Your task to perform on an android device: Clear all items from cart on costco.com. Search for "dell xps" on costco.com, select the first entry, and add it to the cart. Image 0: 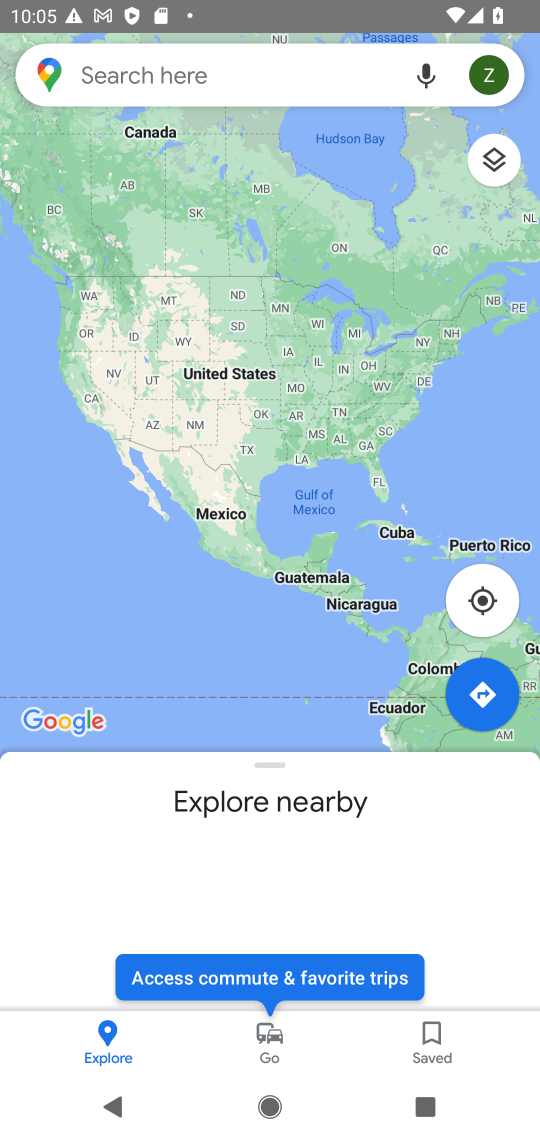
Step 0: press home button
Your task to perform on an android device: Clear all items from cart on costco.com. Search for "dell xps" on costco.com, select the first entry, and add it to the cart. Image 1: 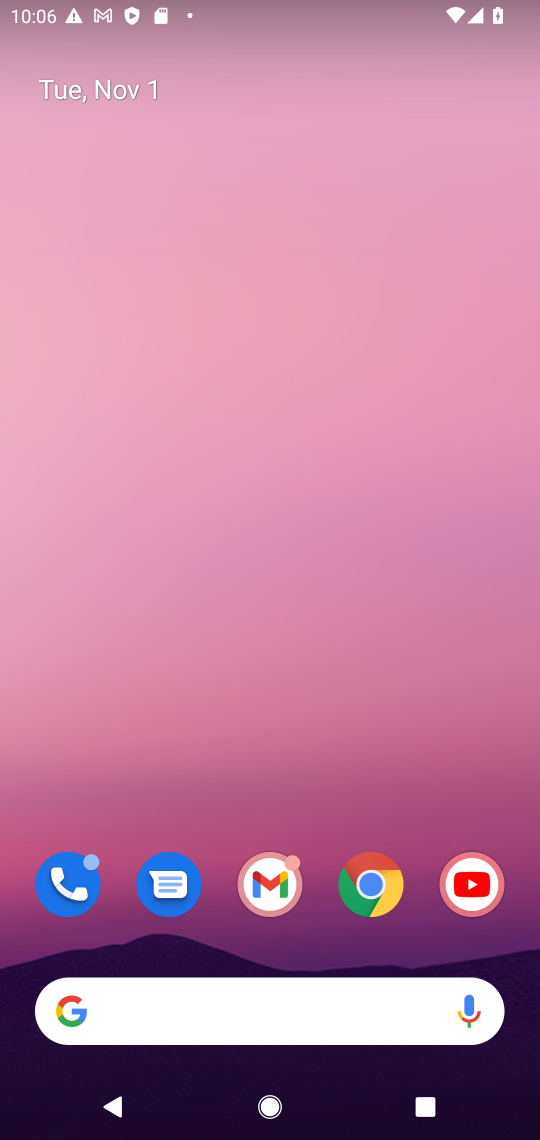
Step 1: click (384, 889)
Your task to perform on an android device: Clear all items from cart on costco.com. Search for "dell xps" on costco.com, select the first entry, and add it to the cart. Image 2: 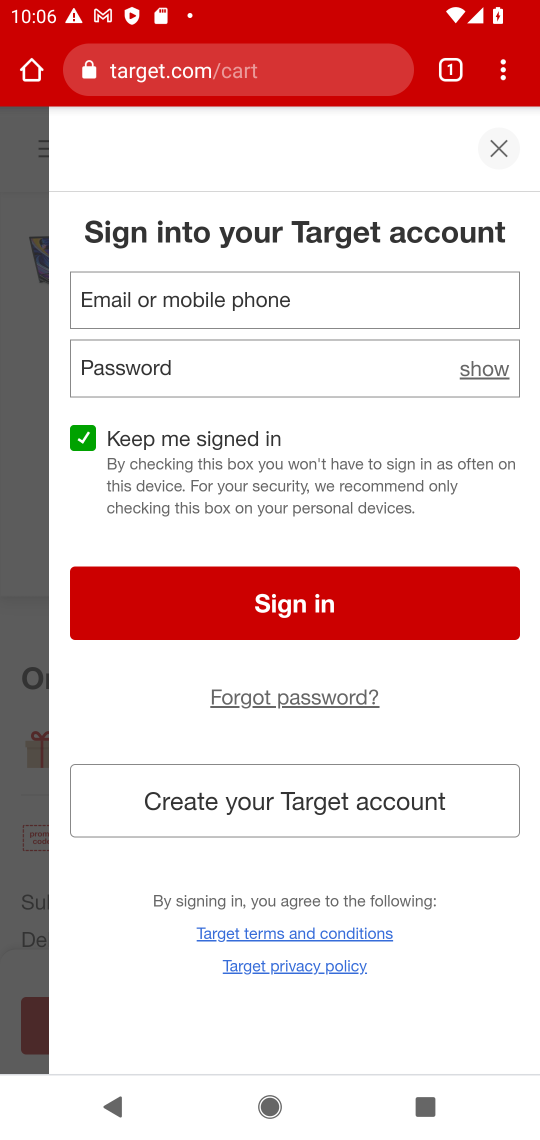
Step 2: click (256, 74)
Your task to perform on an android device: Clear all items from cart on costco.com. Search for "dell xps" on costco.com, select the first entry, and add it to the cart. Image 3: 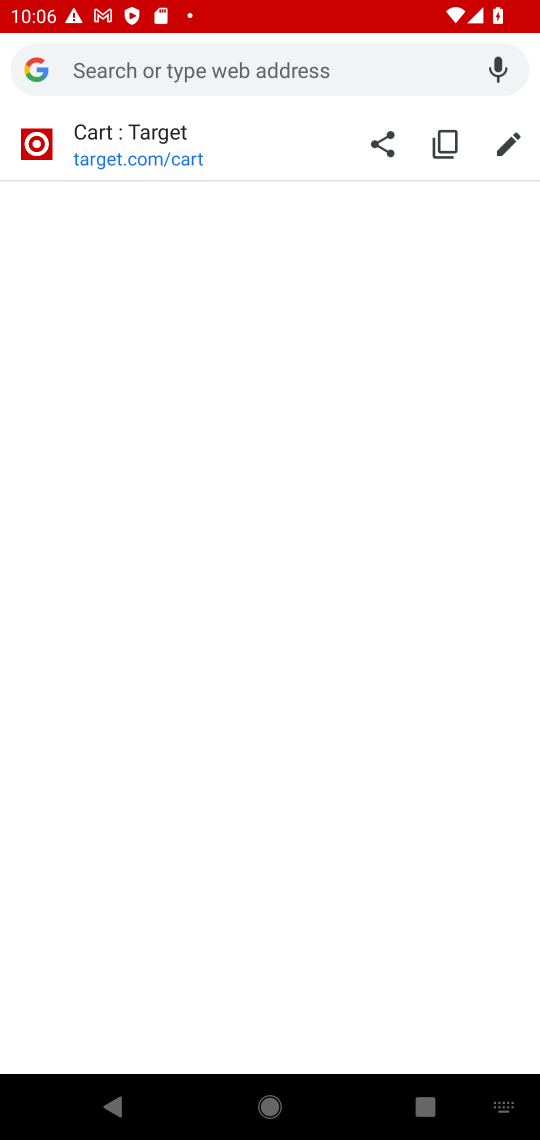
Step 3: type "costco.com"
Your task to perform on an android device: Clear all items from cart on costco.com. Search for "dell xps" on costco.com, select the first entry, and add it to the cart. Image 4: 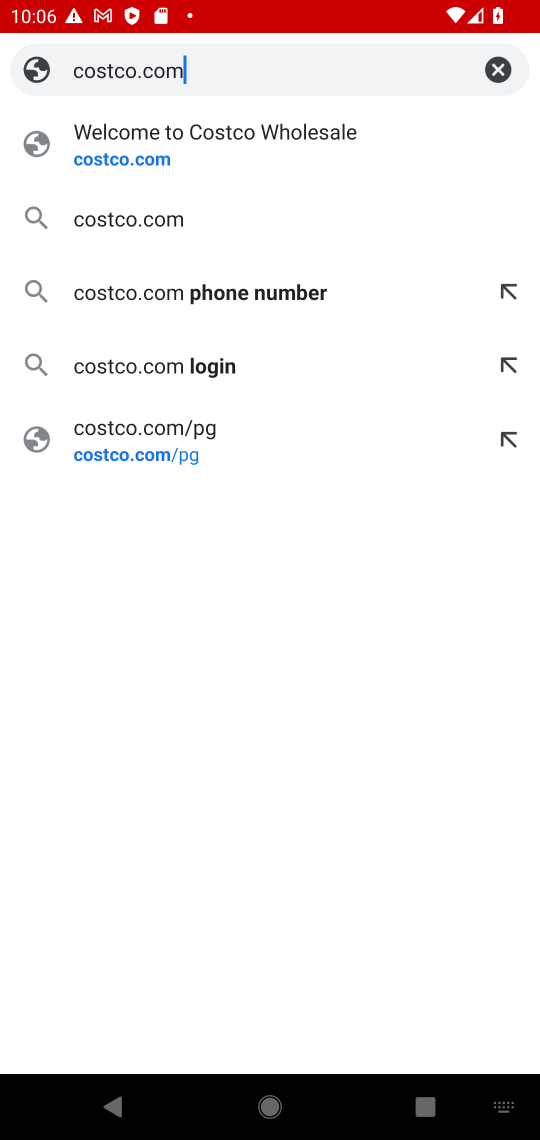
Step 4: press enter
Your task to perform on an android device: Clear all items from cart on costco.com. Search for "dell xps" on costco.com, select the first entry, and add it to the cart. Image 5: 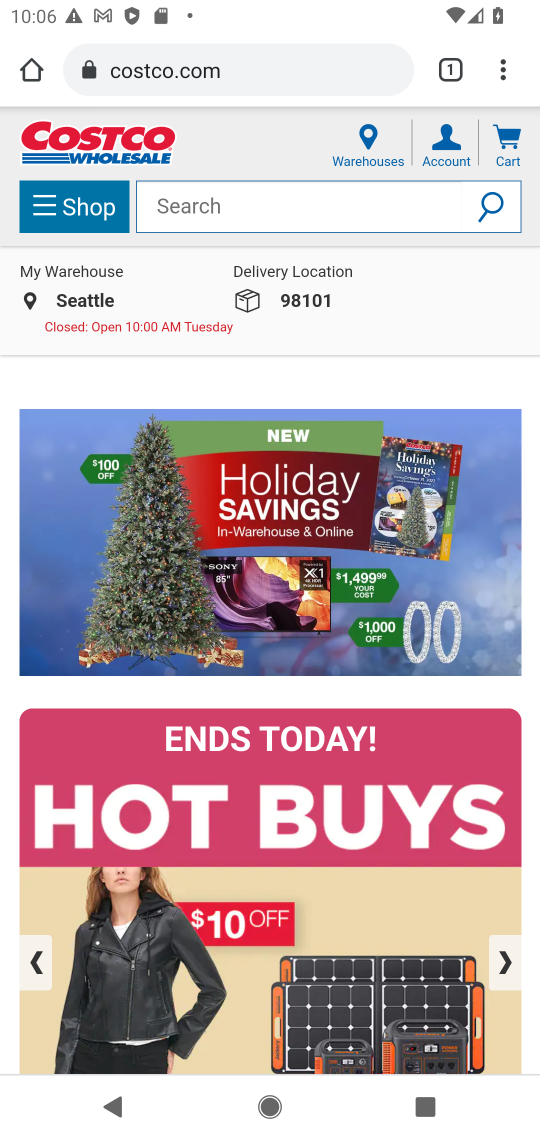
Step 5: click (484, 145)
Your task to perform on an android device: Clear all items from cart on costco.com. Search for "dell xps" on costco.com, select the first entry, and add it to the cart. Image 6: 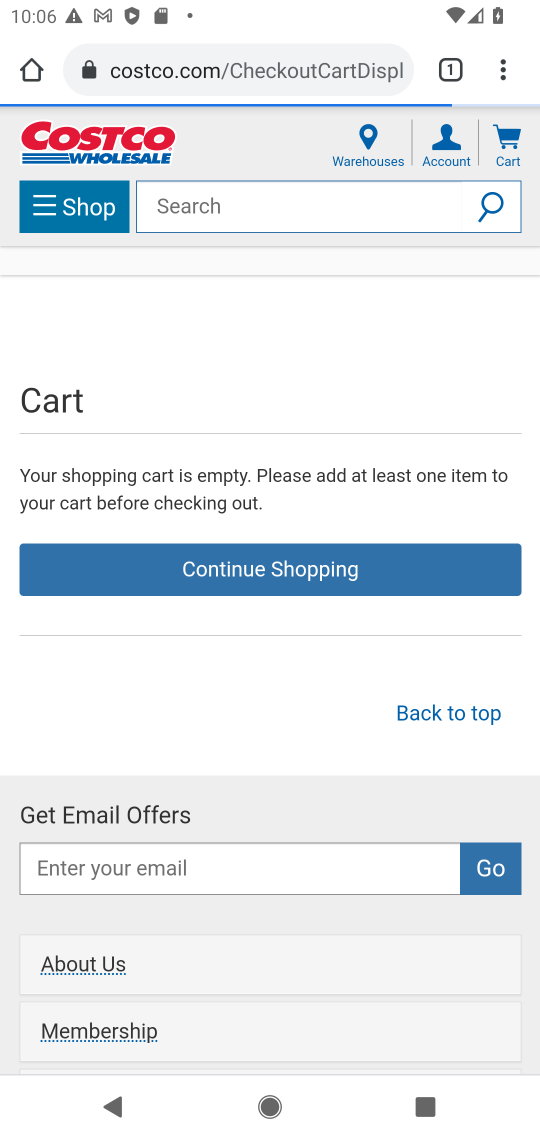
Step 6: click (292, 211)
Your task to perform on an android device: Clear all items from cart on costco.com. Search for "dell xps" on costco.com, select the first entry, and add it to the cart. Image 7: 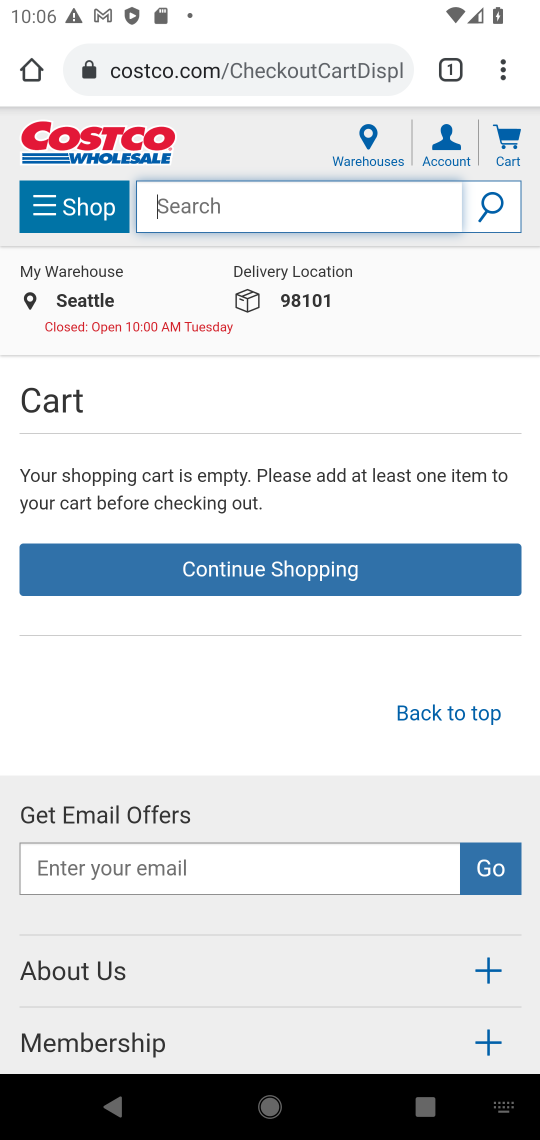
Step 7: type "dell xps"
Your task to perform on an android device: Clear all items from cart on costco.com. Search for "dell xps" on costco.com, select the first entry, and add it to the cart. Image 8: 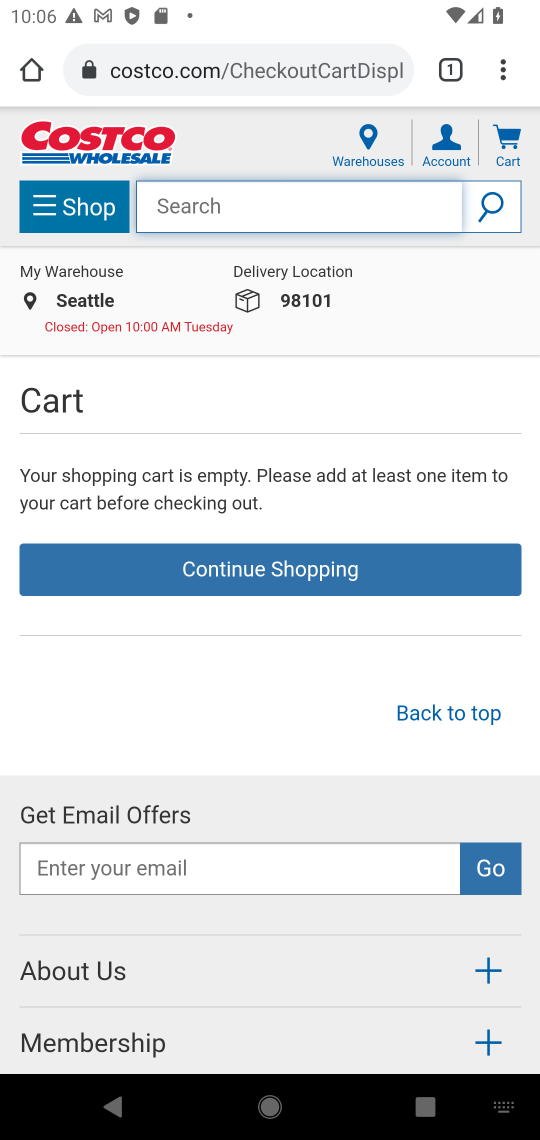
Step 8: type ""
Your task to perform on an android device: Clear all items from cart on costco.com. Search for "dell xps" on costco.com, select the first entry, and add it to the cart. Image 9: 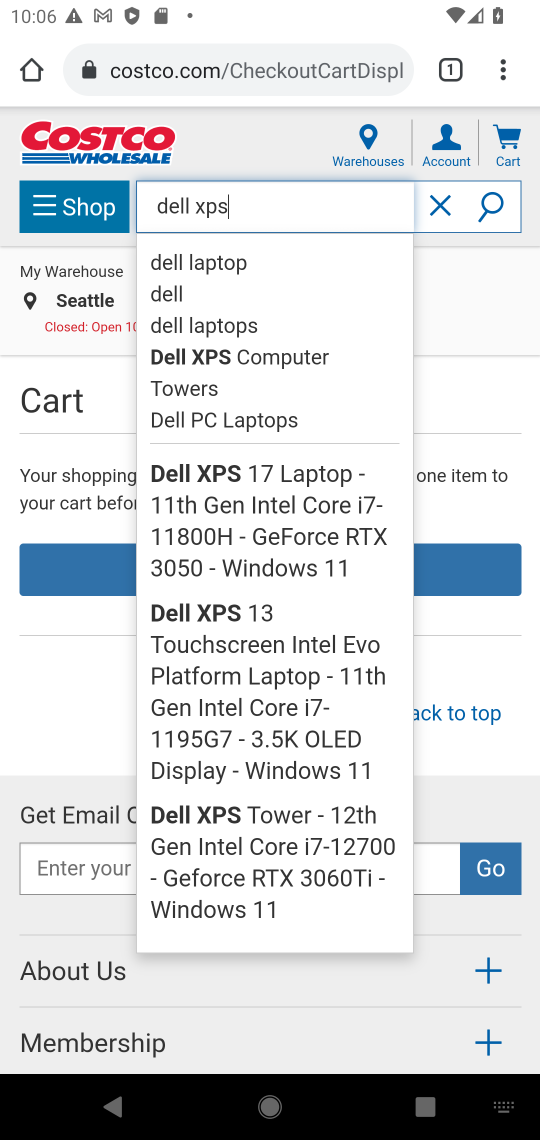
Step 9: press enter
Your task to perform on an android device: Clear all items from cart on costco.com. Search for "dell xps" on costco.com, select the first entry, and add it to the cart. Image 10: 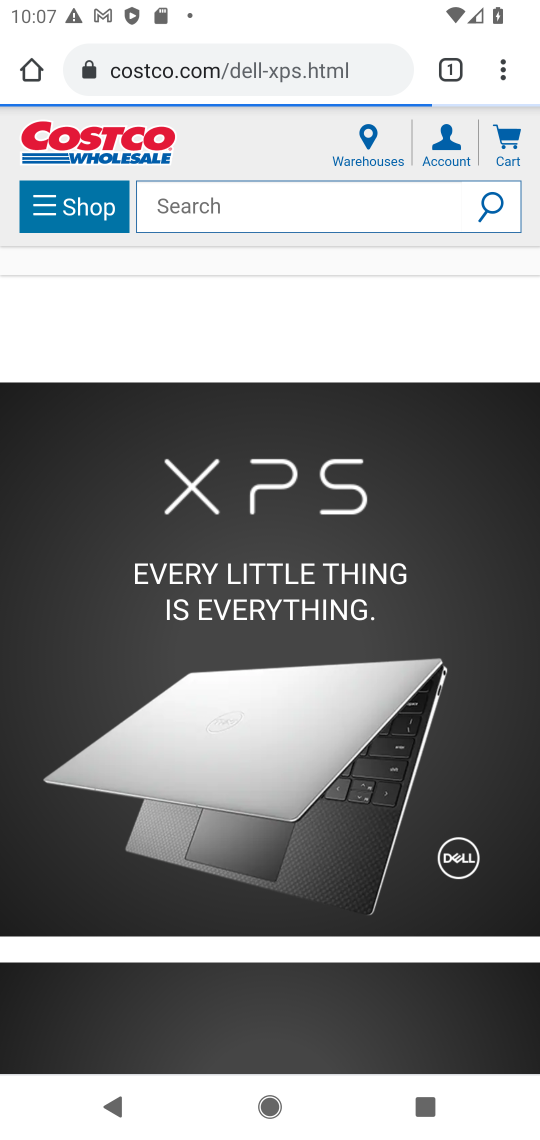
Step 10: drag from (348, 911) to (360, 278)
Your task to perform on an android device: Clear all items from cart on costco.com. Search for "dell xps" on costco.com, select the first entry, and add it to the cart. Image 11: 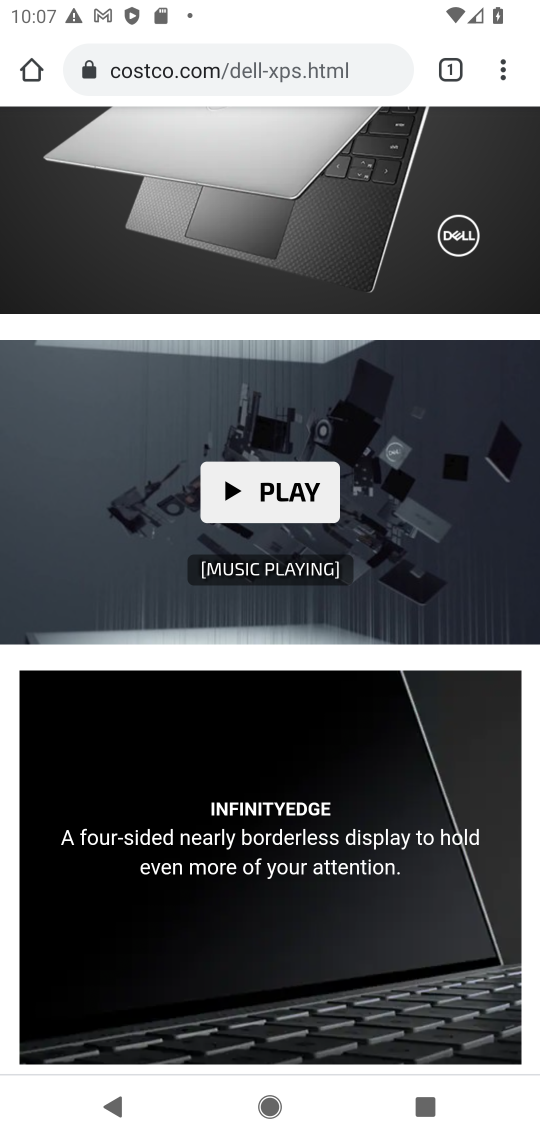
Step 11: drag from (413, 889) to (376, 201)
Your task to perform on an android device: Clear all items from cart on costco.com. Search for "dell xps" on costco.com, select the first entry, and add it to the cart. Image 12: 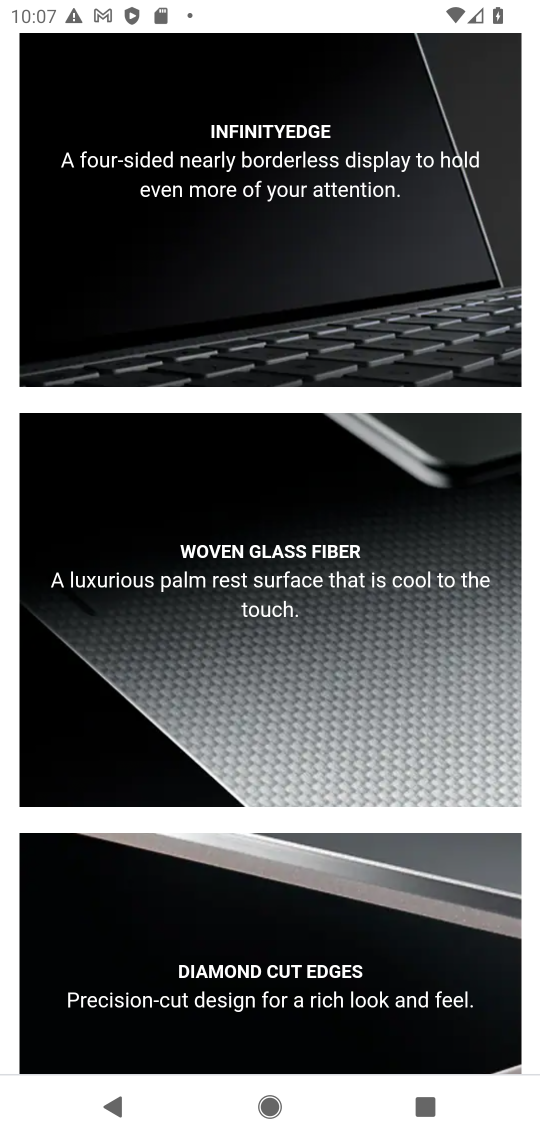
Step 12: drag from (357, 959) to (338, 360)
Your task to perform on an android device: Clear all items from cart on costco.com. Search for "dell xps" on costco.com, select the first entry, and add it to the cart. Image 13: 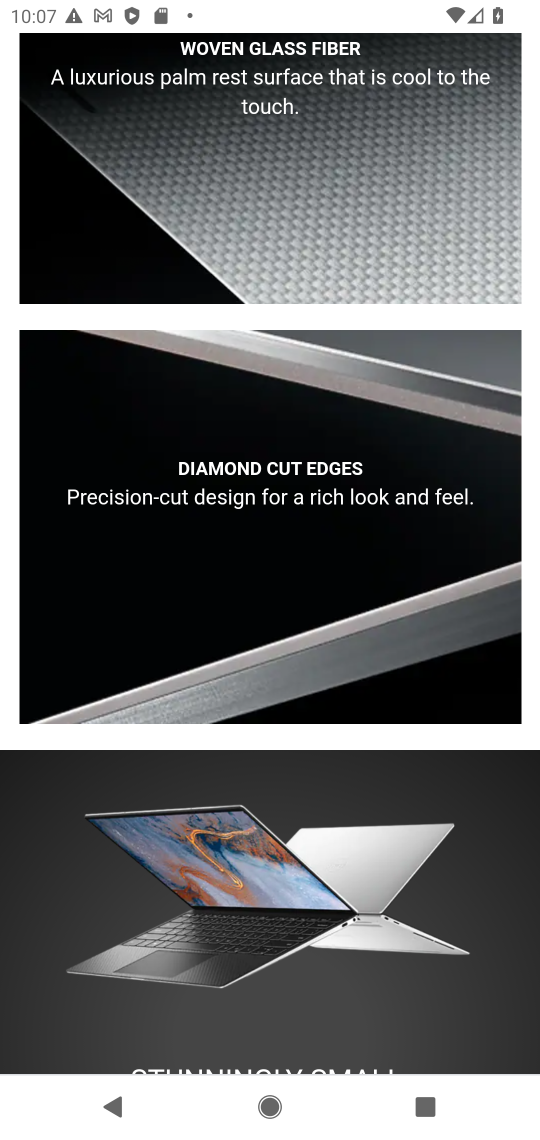
Step 13: drag from (356, 930) to (342, 326)
Your task to perform on an android device: Clear all items from cart on costco.com. Search for "dell xps" on costco.com, select the first entry, and add it to the cart. Image 14: 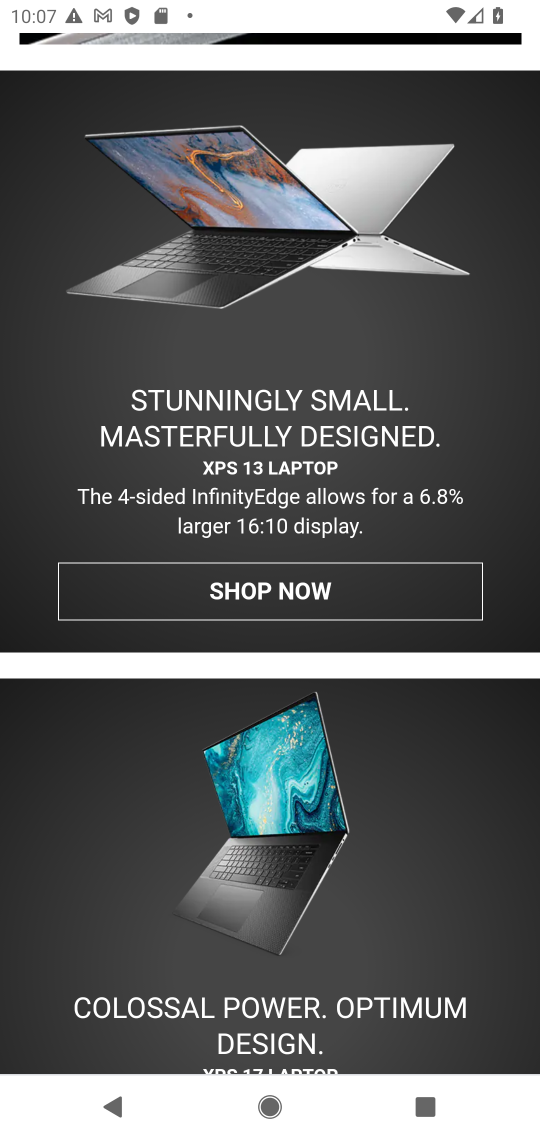
Step 14: click (374, 609)
Your task to perform on an android device: Clear all items from cart on costco.com. Search for "dell xps" on costco.com, select the first entry, and add it to the cart. Image 15: 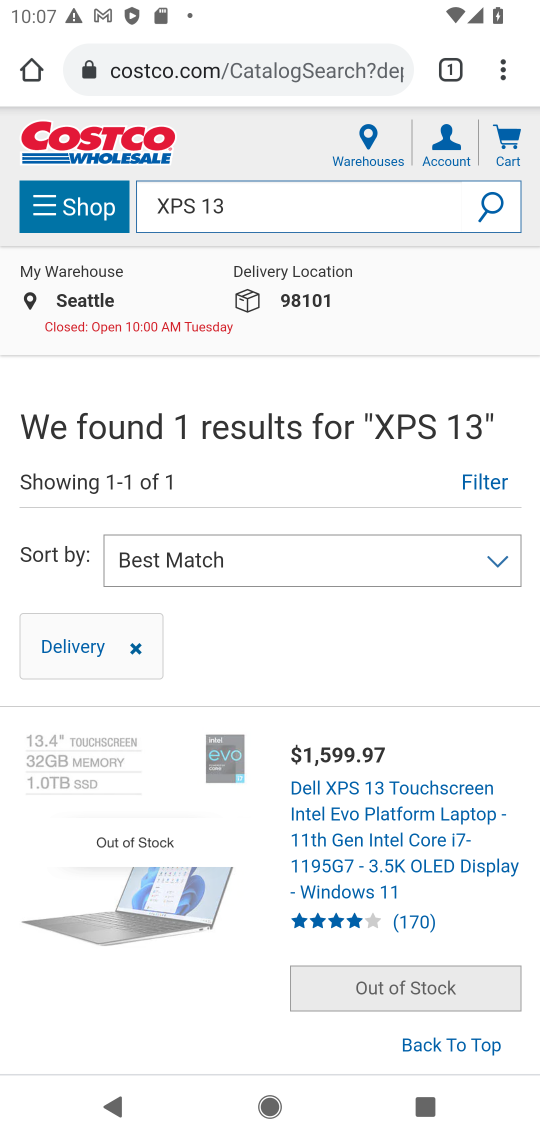
Step 15: task complete